Your task to perform on an android device: Set the phone to "Do not disturb". Image 0: 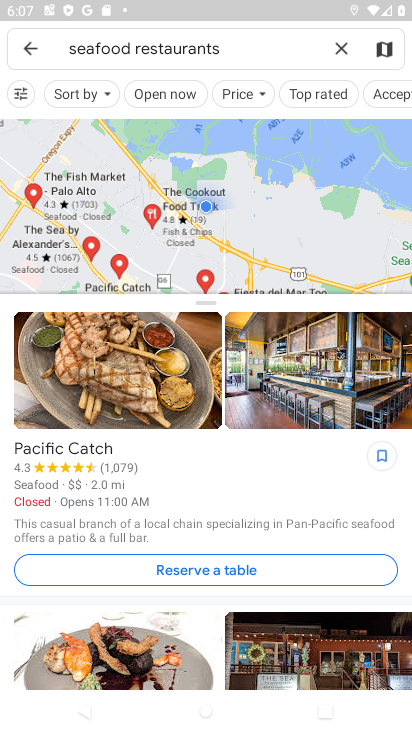
Step 0: press home button
Your task to perform on an android device: Set the phone to "Do not disturb". Image 1: 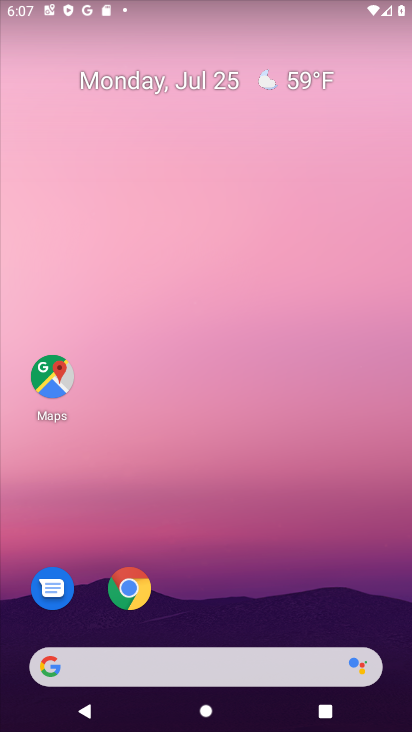
Step 1: drag from (202, 4) to (156, 337)
Your task to perform on an android device: Set the phone to "Do not disturb". Image 2: 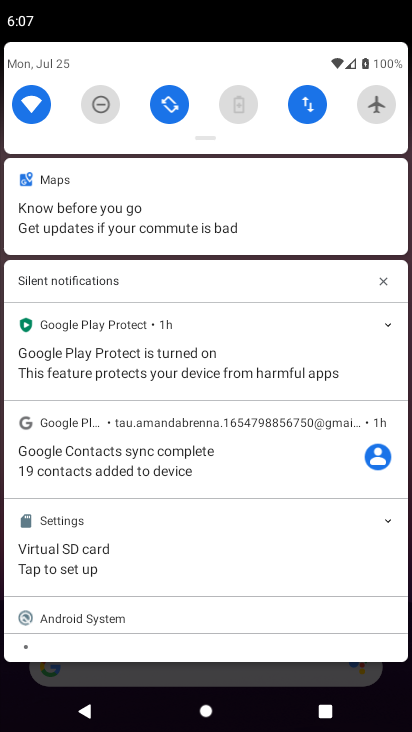
Step 2: drag from (208, 128) to (202, 313)
Your task to perform on an android device: Set the phone to "Do not disturb". Image 3: 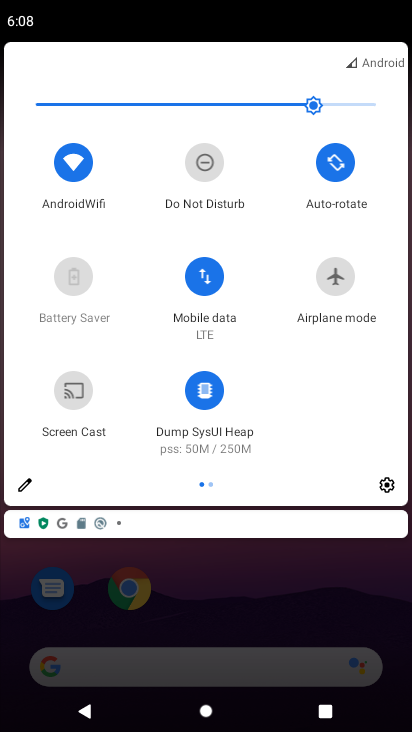
Step 3: click (204, 165)
Your task to perform on an android device: Set the phone to "Do not disturb". Image 4: 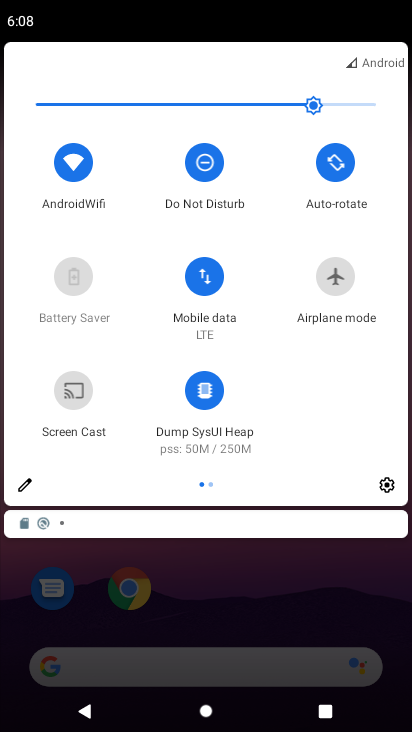
Step 4: task complete